Your task to perform on an android device: remove spam from my inbox in the gmail app Image 0: 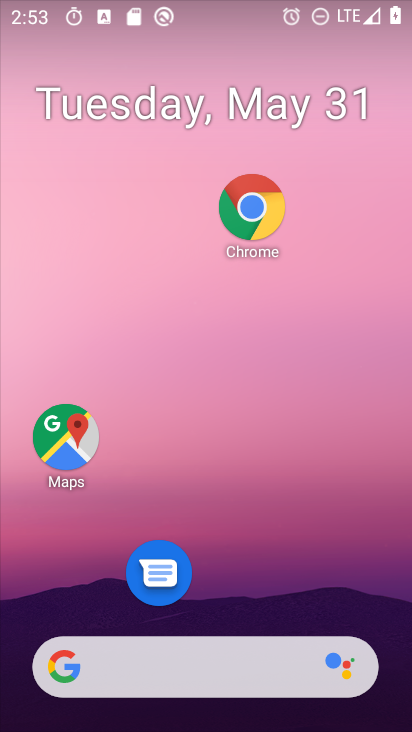
Step 0: drag from (273, 621) to (322, 28)
Your task to perform on an android device: remove spam from my inbox in the gmail app Image 1: 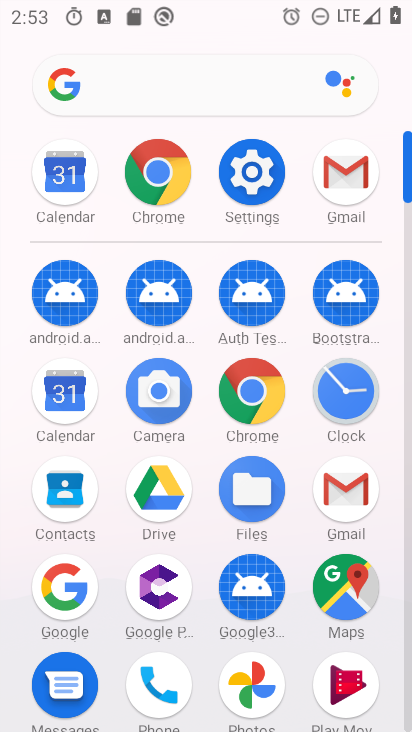
Step 1: click (359, 513)
Your task to perform on an android device: remove spam from my inbox in the gmail app Image 2: 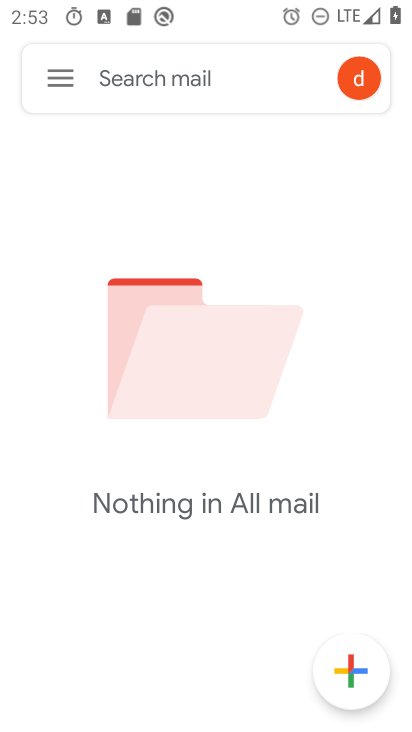
Step 2: click (67, 73)
Your task to perform on an android device: remove spam from my inbox in the gmail app Image 3: 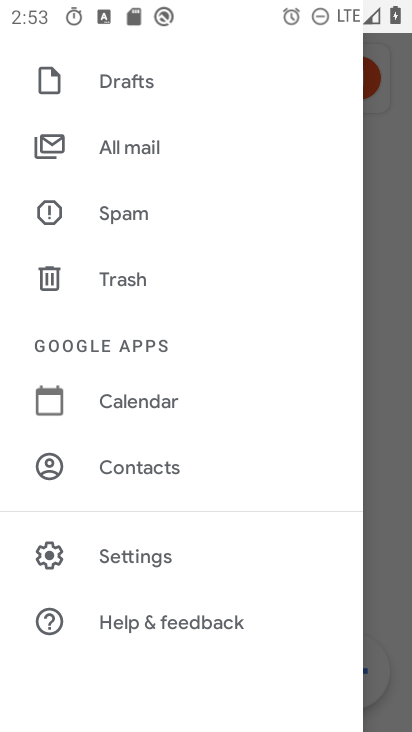
Step 3: click (177, 210)
Your task to perform on an android device: remove spam from my inbox in the gmail app Image 4: 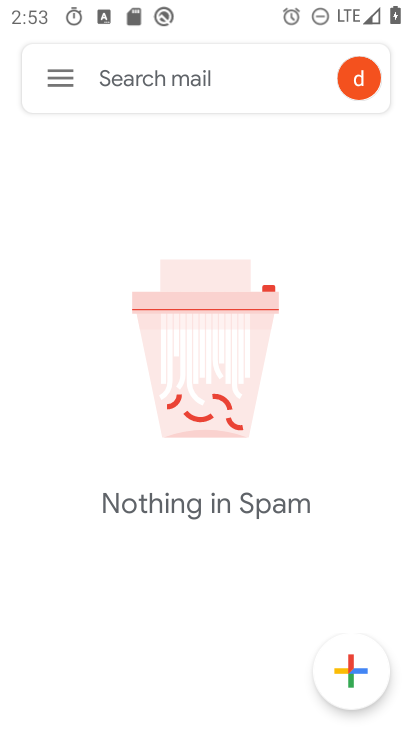
Step 4: task complete